Your task to perform on an android device: Do I have any events today? Image 0: 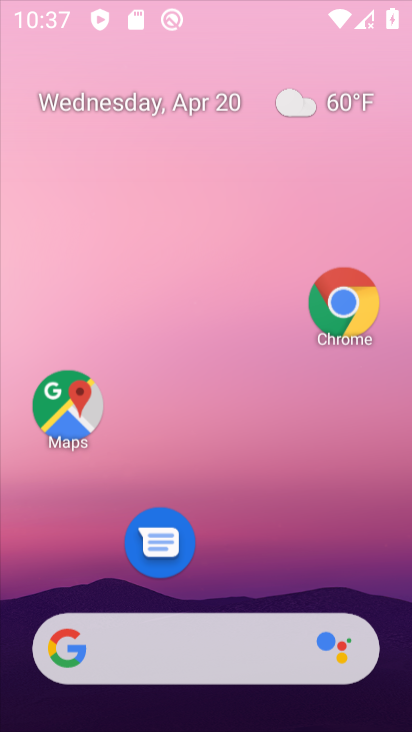
Step 0: click (254, 67)
Your task to perform on an android device: Do I have any events today? Image 1: 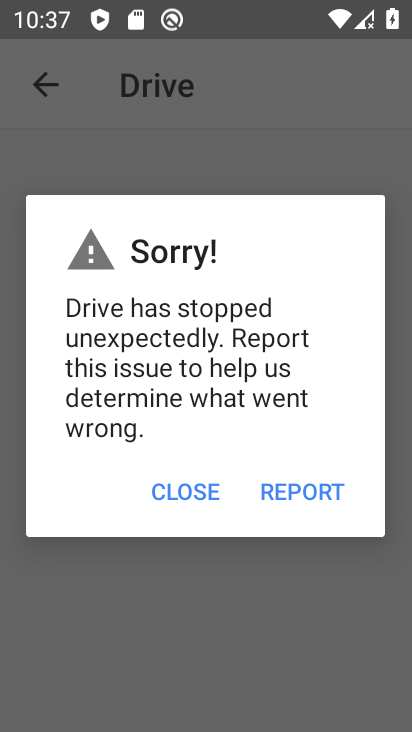
Step 1: click (190, 489)
Your task to perform on an android device: Do I have any events today? Image 2: 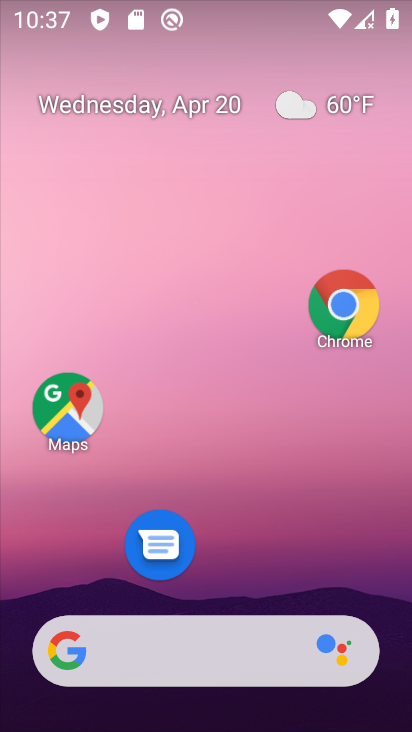
Step 2: drag from (233, 595) to (260, 147)
Your task to perform on an android device: Do I have any events today? Image 3: 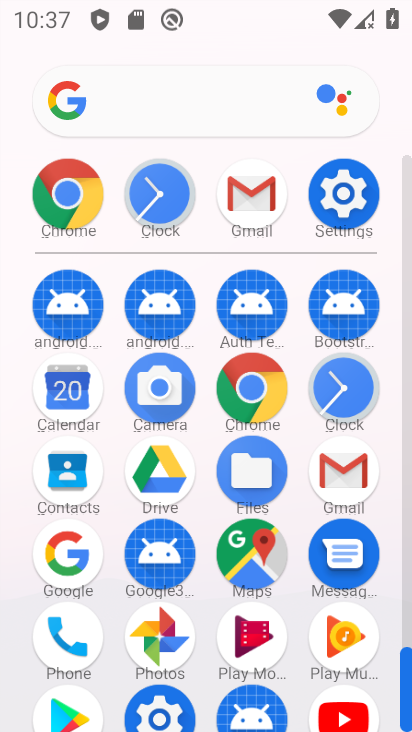
Step 3: click (357, 210)
Your task to perform on an android device: Do I have any events today? Image 4: 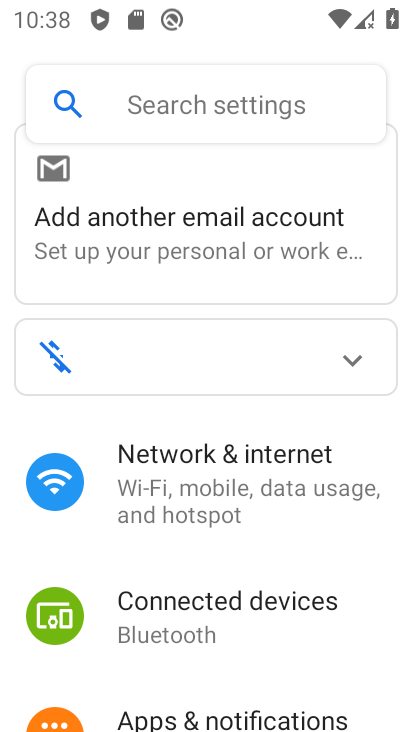
Step 4: drag from (200, 583) to (236, 173)
Your task to perform on an android device: Do I have any events today? Image 5: 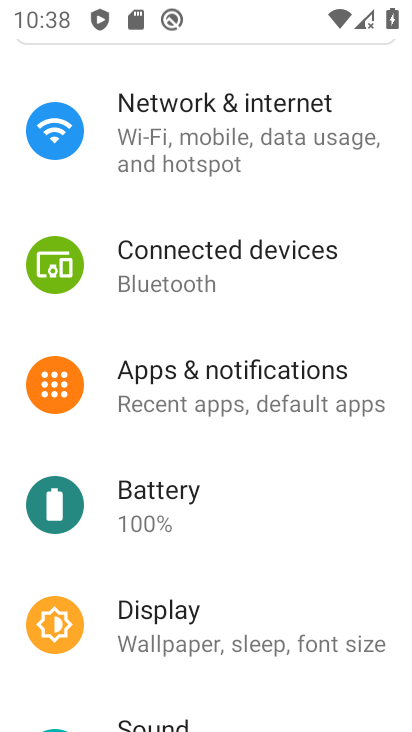
Step 5: press home button
Your task to perform on an android device: Do I have any events today? Image 6: 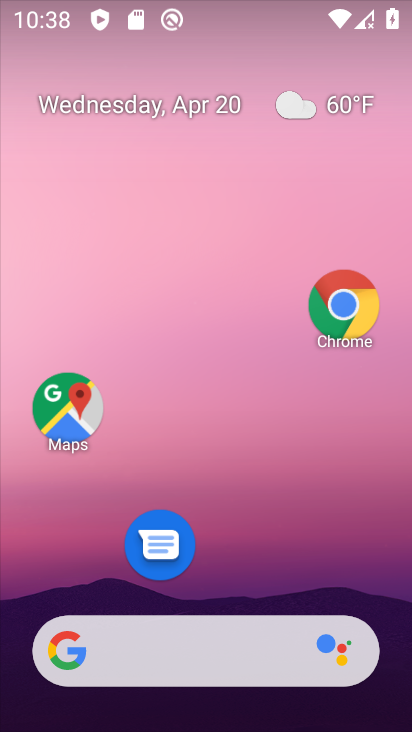
Step 6: drag from (296, 521) to (263, 82)
Your task to perform on an android device: Do I have any events today? Image 7: 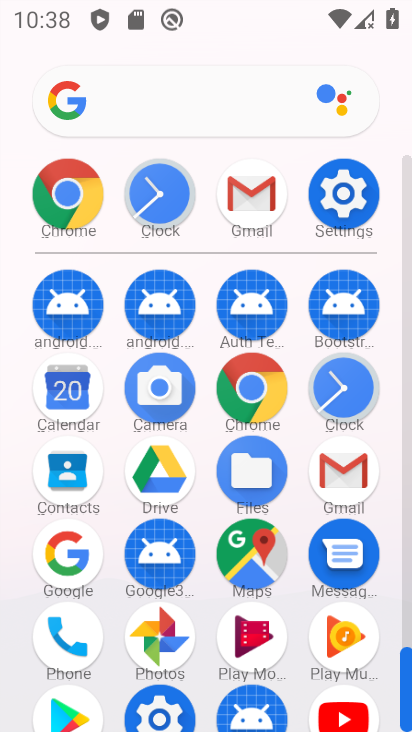
Step 7: click (70, 367)
Your task to perform on an android device: Do I have any events today? Image 8: 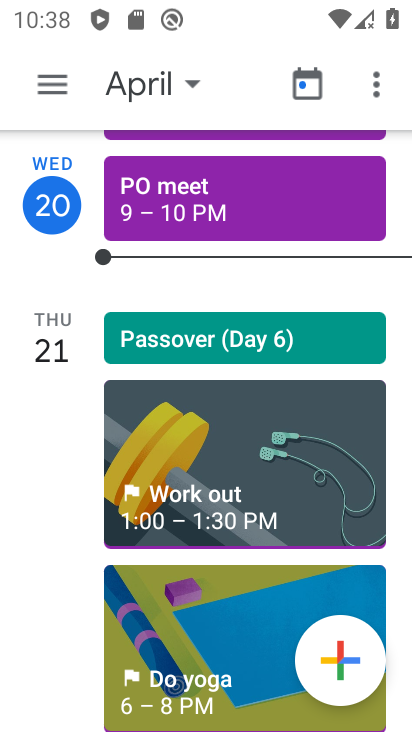
Step 8: task complete